Your task to perform on an android device: create a new album in the google photos Image 0: 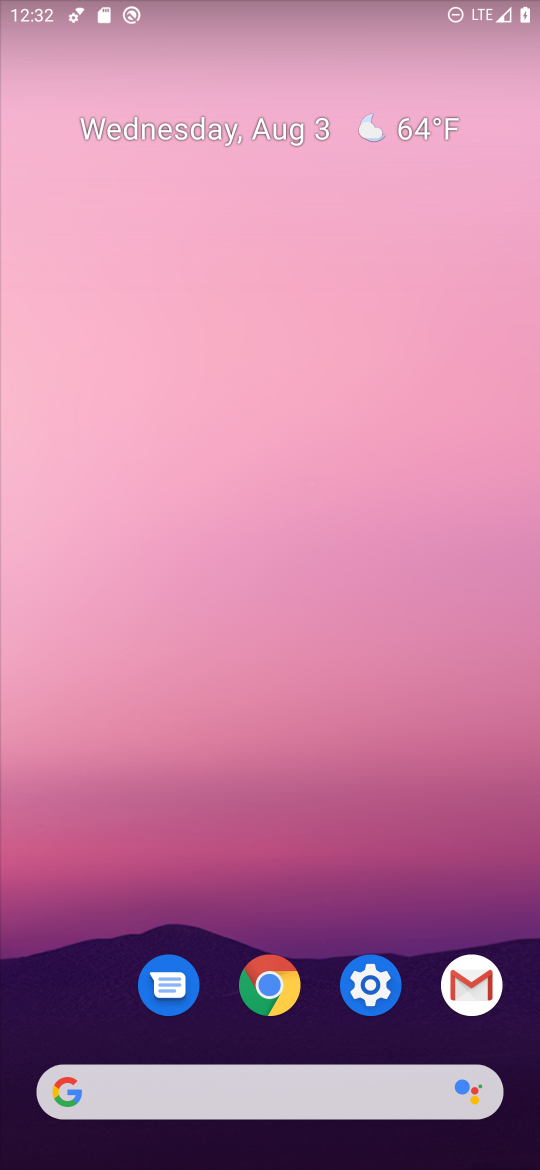
Step 0: press home button
Your task to perform on an android device: create a new album in the google photos Image 1: 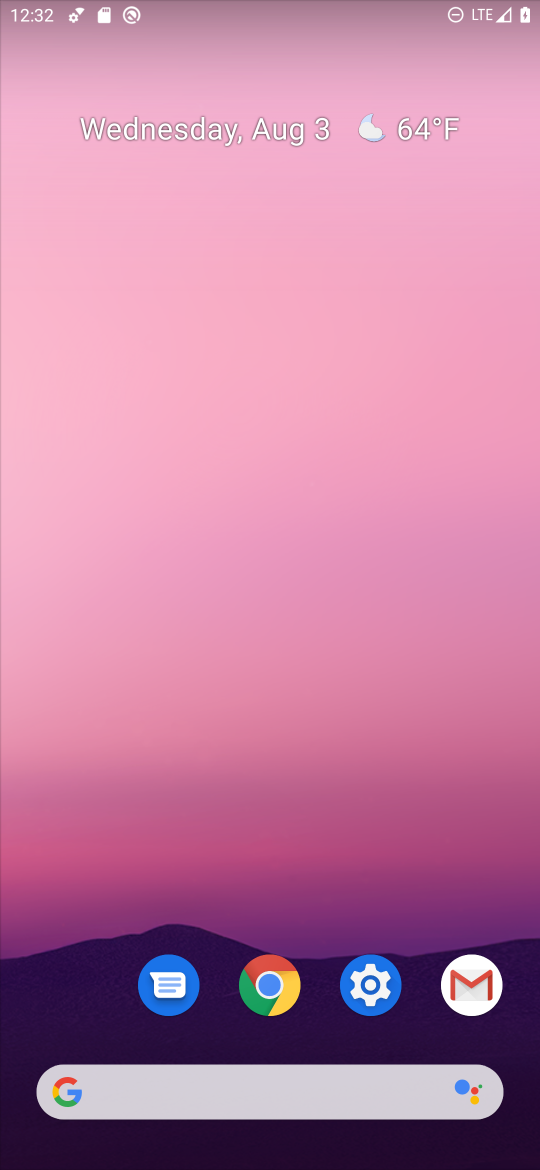
Step 1: drag from (397, 1028) to (255, 248)
Your task to perform on an android device: create a new album in the google photos Image 2: 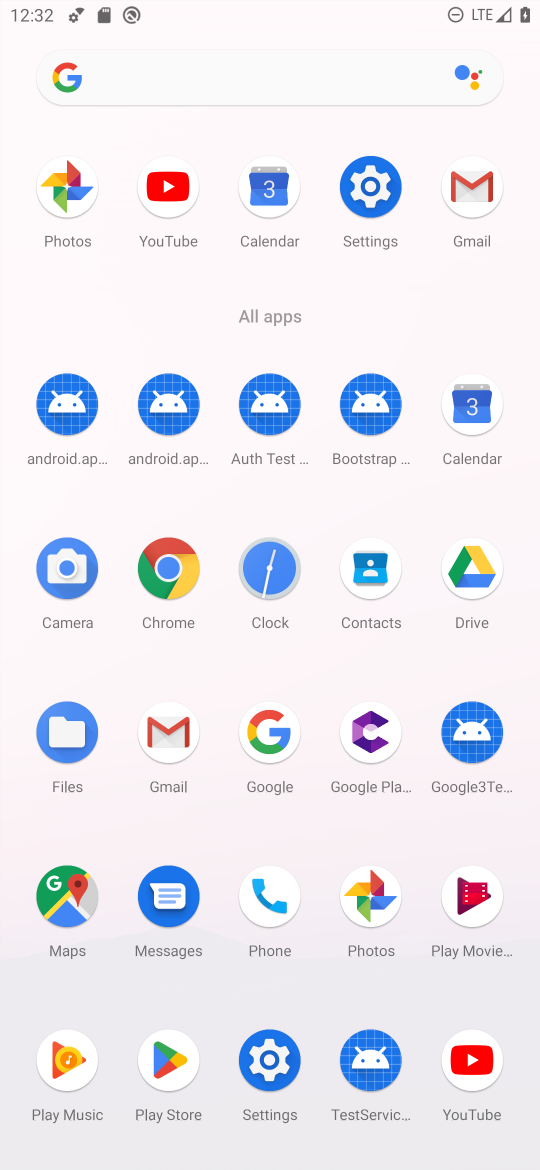
Step 2: click (349, 896)
Your task to perform on an android device: create a new album in the google photos Image 3: 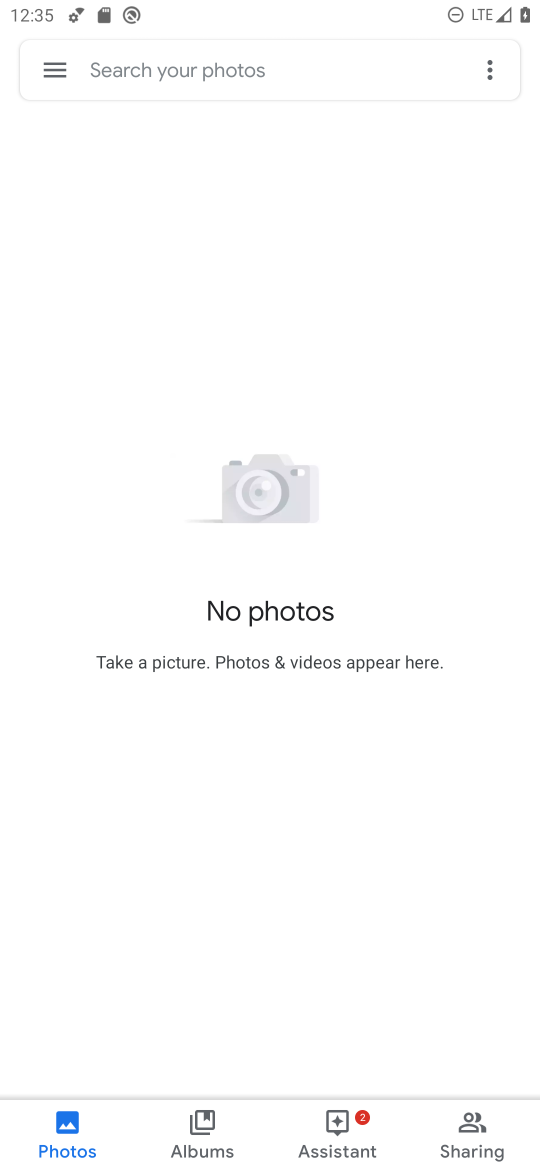
Step 3: task complete